Your task to perform on an android device: toggle wifi Image 0: 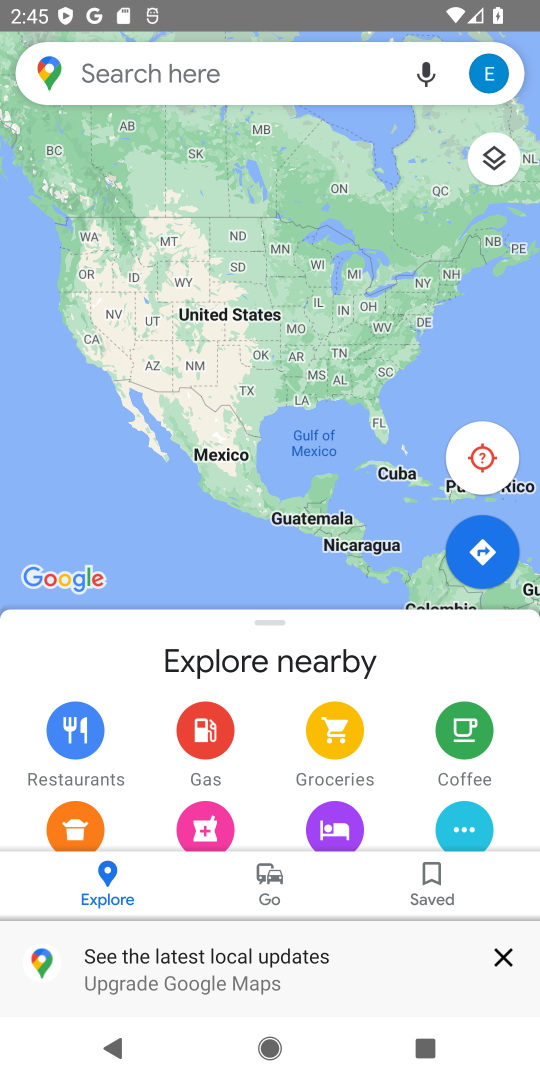
Step 0: press back button
Your task to perform on an android device: toggle wifi Image 1: 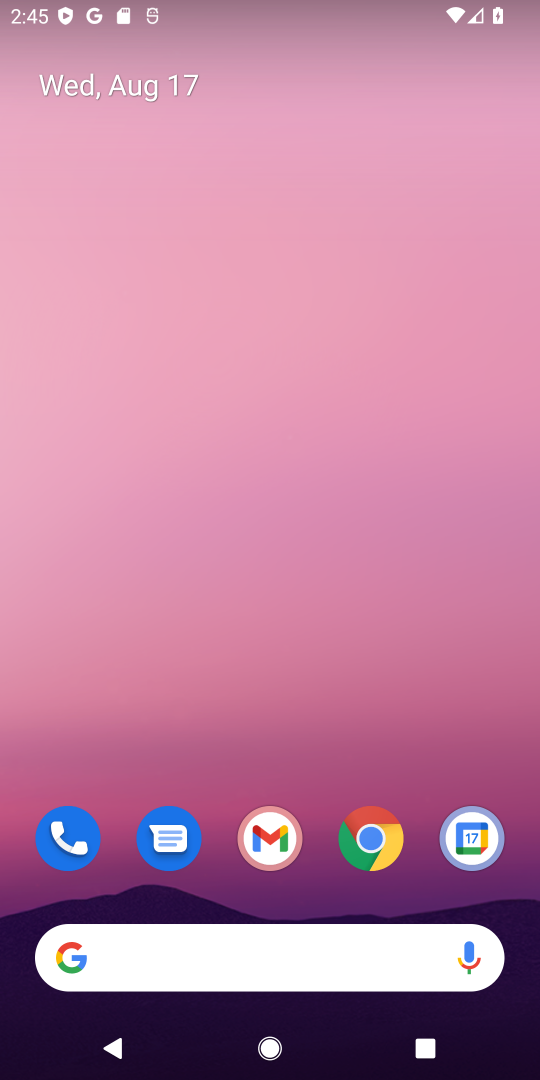
Step 1: drag from (157, 13) to (204, 837)
Your task to perform on an android device: toggle wifi Image 2: 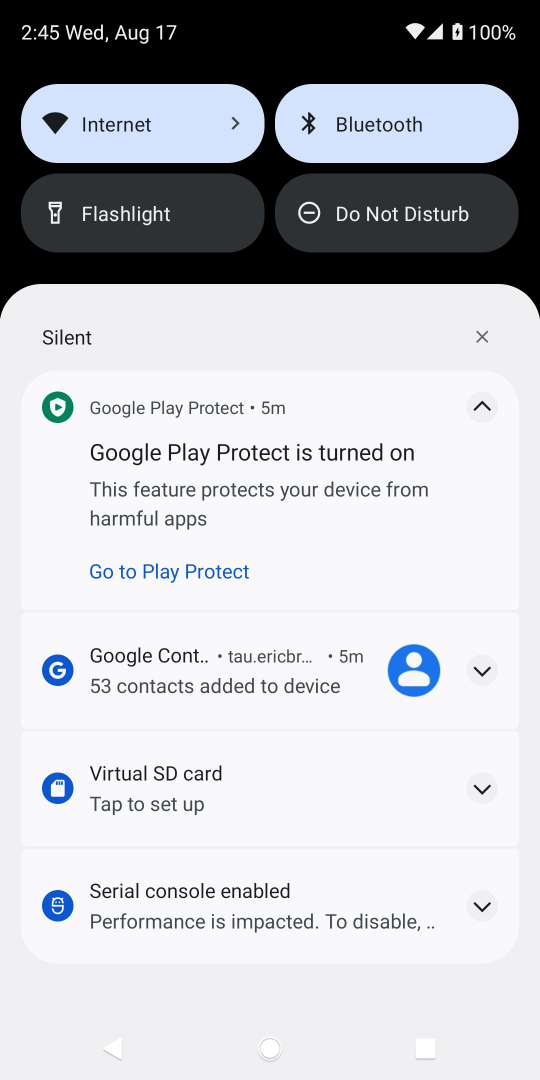
Step 2: click (108, 125)
Your task to perform on an android device: toggle wifi Image 3: 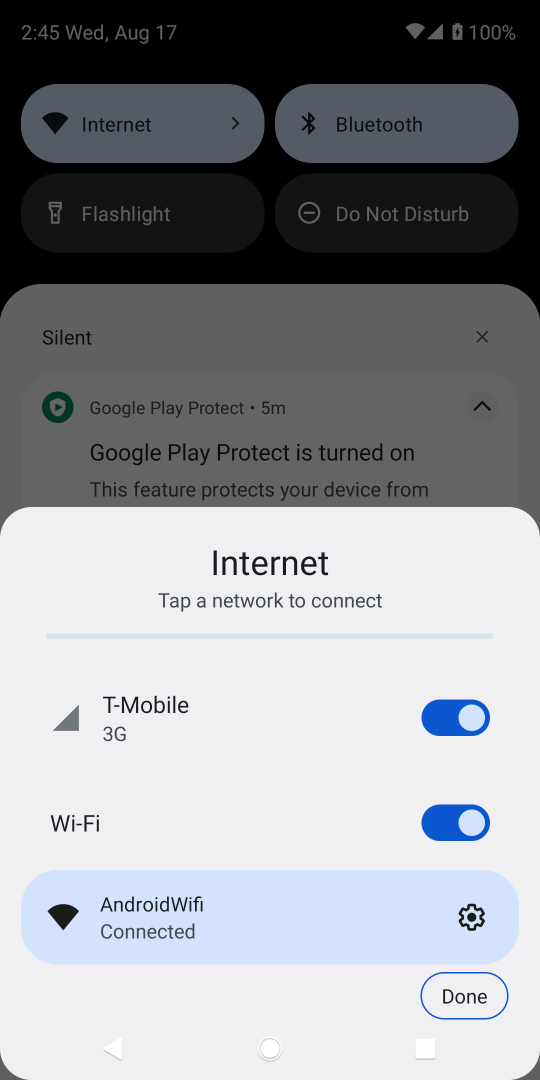
Step 3: click (459, 821)
Your task to perform on an android device: toggle wifi Image 4: 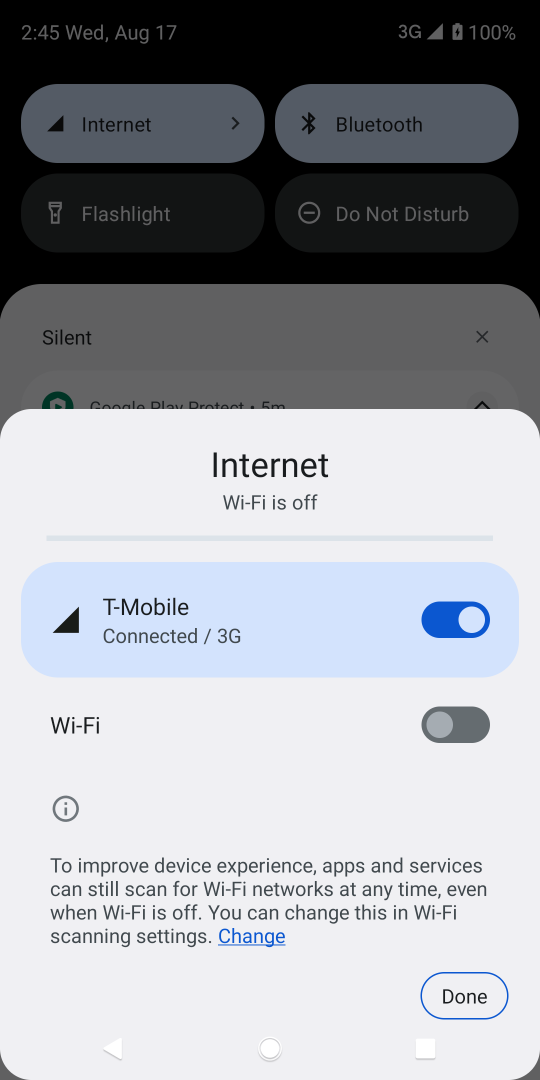
Step 4: task complete